Your task to perform on an android device: Play the last video I watched on Youtube Image 0: 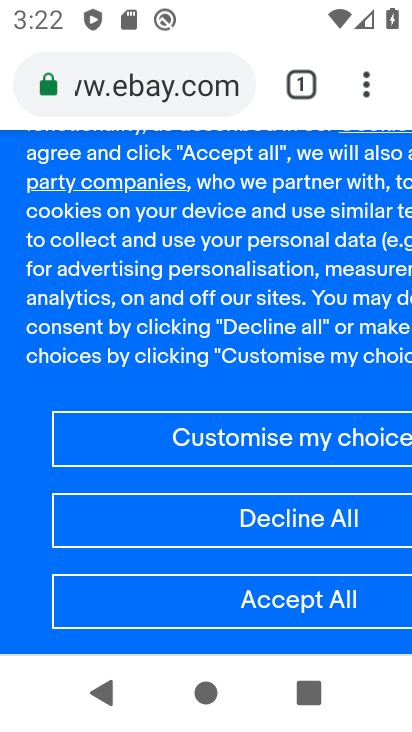
Step 0: press home button
Your task to perform on an android device: Play the last video I watched on Youtube Image 1: 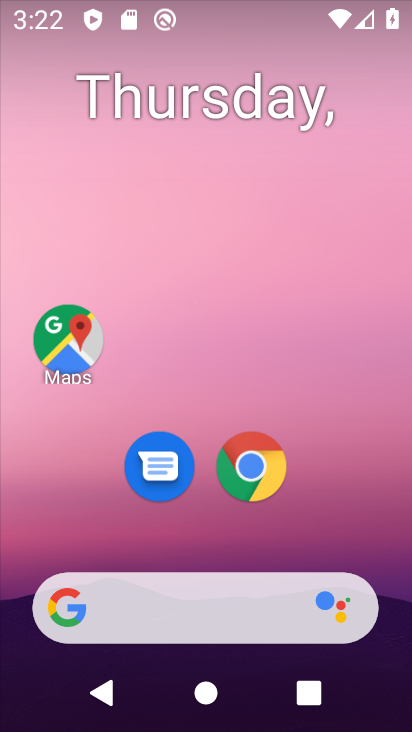
Step 1: drag from (300, 656) to (404, 0)
Your task to perform on an android device: Play the last video I watched on Youtube Image 2: 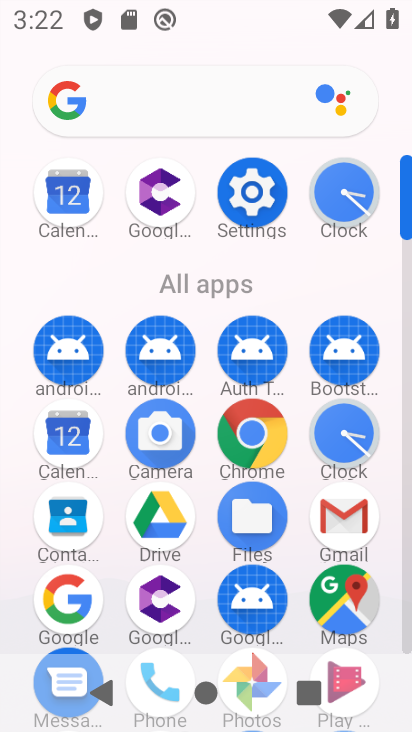
Step 2: drag from (313, 595) to (354, 169)
Your task to perform on an android device: Play the last video I watched on Youtube Image 3: 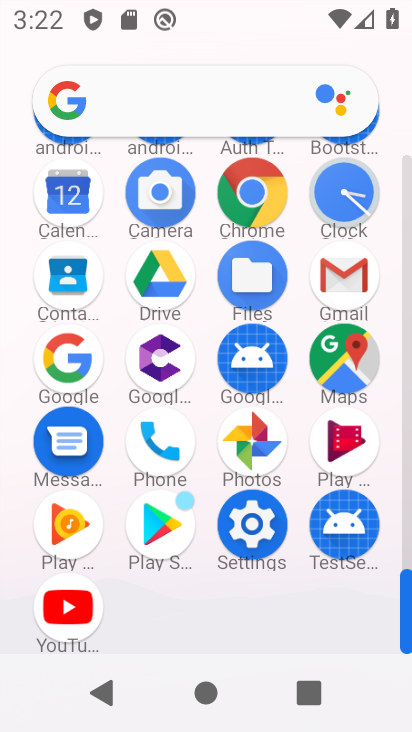
Step 3: click (90, 617)
Your task to perform on an android device: Play the last video I watched on Youtube Image 4: 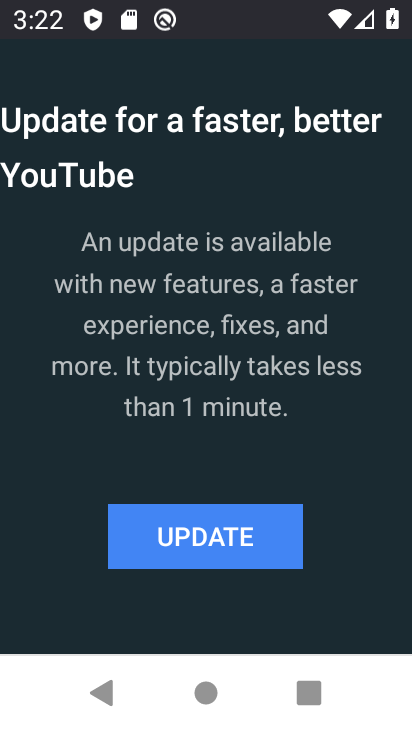
Step 4: click (268, 524)
Your task to perform on an android device: Play the last video I watched on Youtube Image 5: 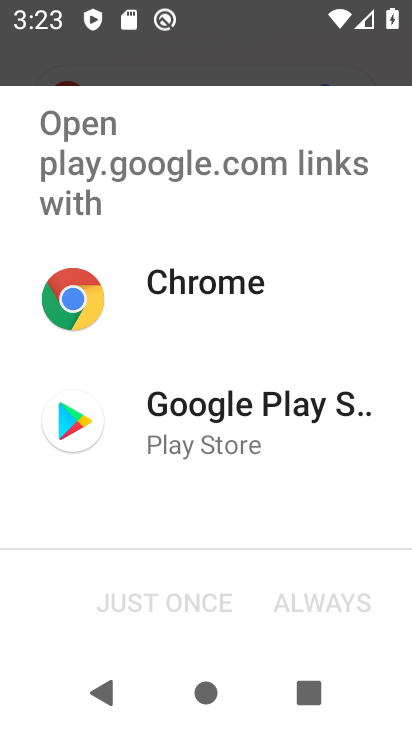
Step 5: click (241, 400)
Your task to perform on an android device: Play the last video I watched on Youtube Image 6: 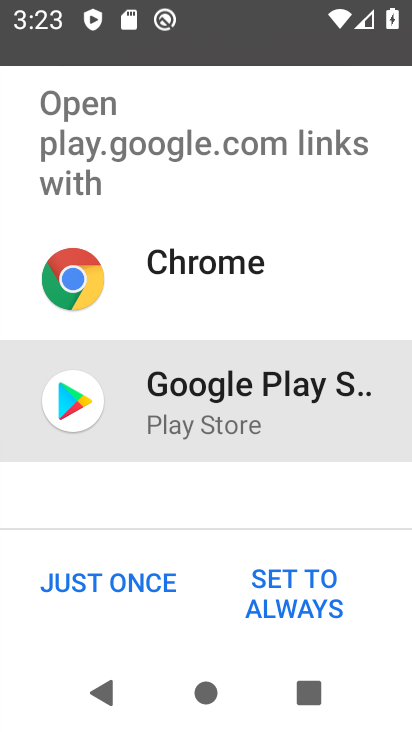
Step 6: click (158, 574)
Your task to perform on an android device: Play the last video I watched on Youtube Image 7: 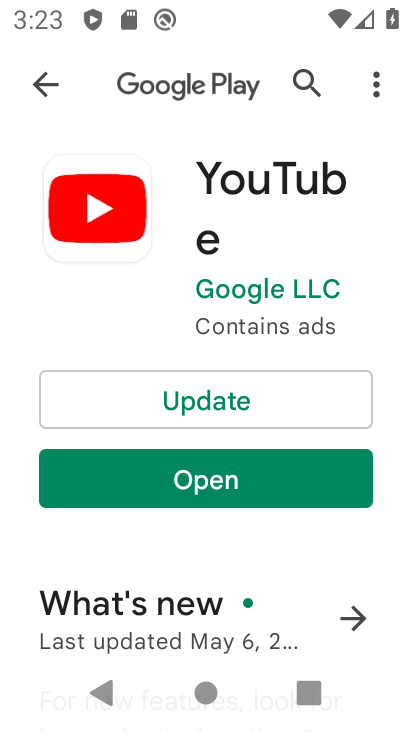
Step 7: click (259, 407)
Your task to perform on an android device: Play the last video I watched on Youtube Image 8: 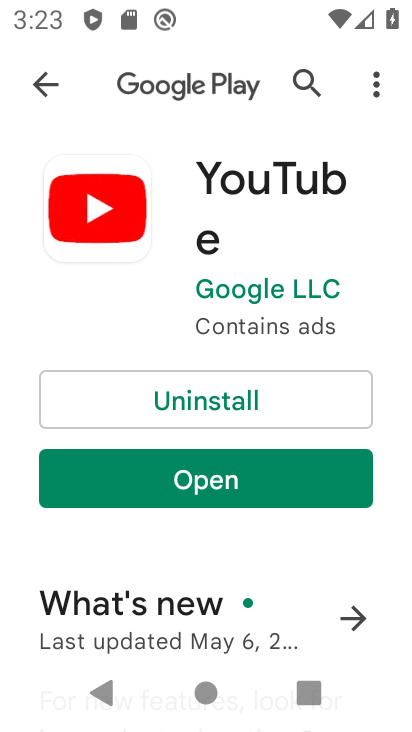
Step 8: click (248, 475)
Your task to perform on an android device: Play the last video I watched on Youtube Image 9: 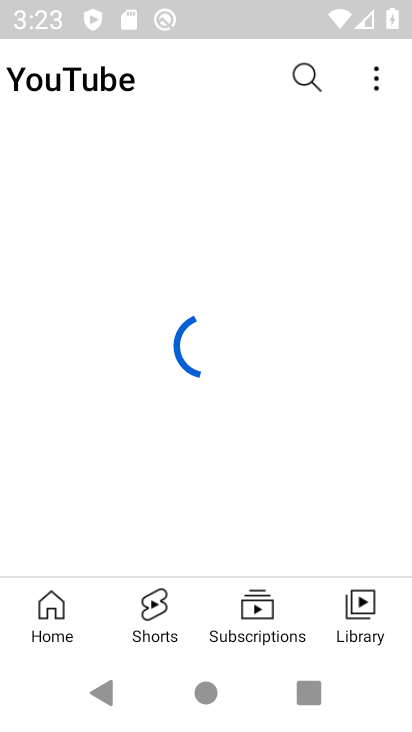
Step 9: click (351, 606)
Your task to perform on an android device: Play the last video I watched on Youtube Image 10: 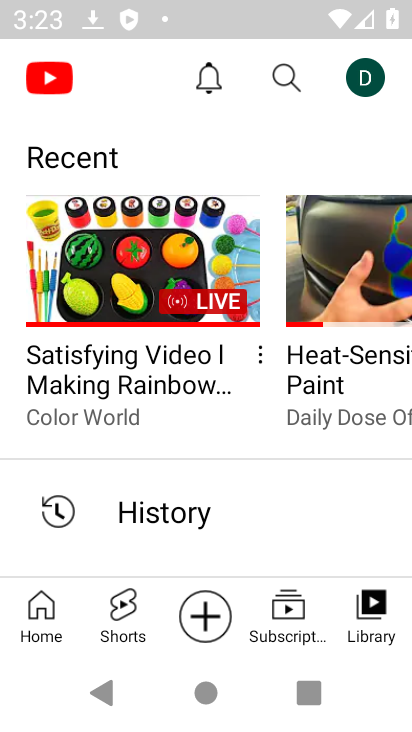
Step 10: click (168, 238)
Your task to perform on an android device: Play the last video I watched on Youtube Image 11: 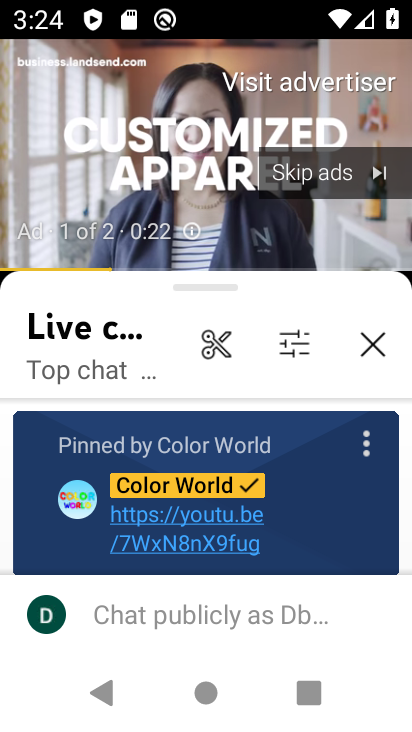
Step 11: click (358, 189)
Your task to perform on an android device: Play the last video I watched on Youtube Image 12: 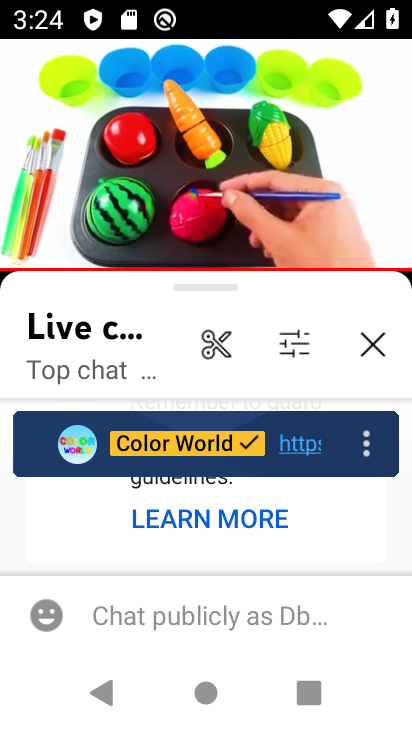
Step 12: task complete